Your task to perform on an android device: See recent photos Image 0: 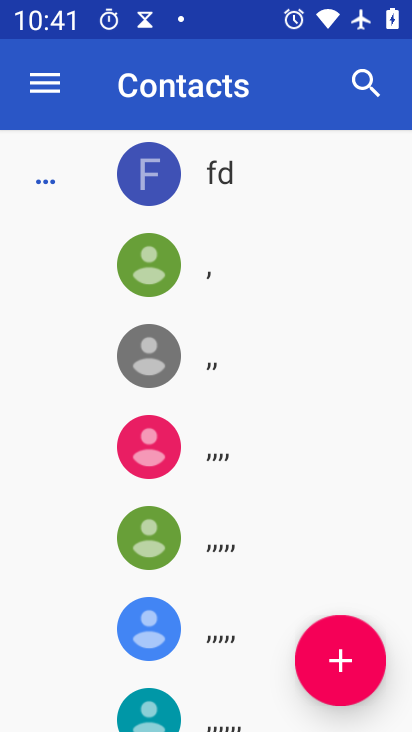
Step 0: press home button
Your task to perform on an android device: See recent photos Image 1: 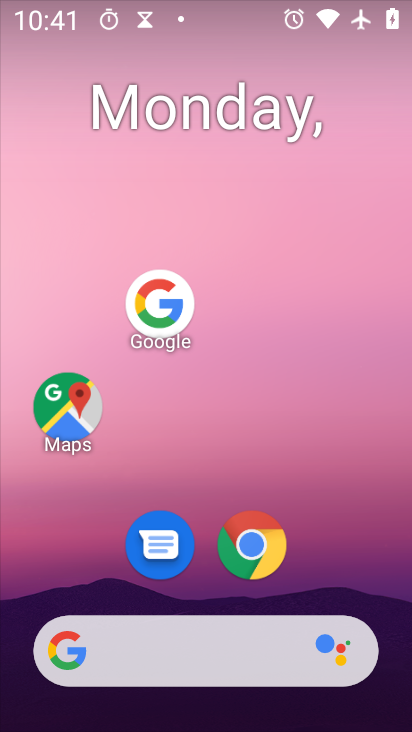
Step 1: drag from (162, 637) to (270, 69)
Your task to perform on an android device: See recent photos Image 2: 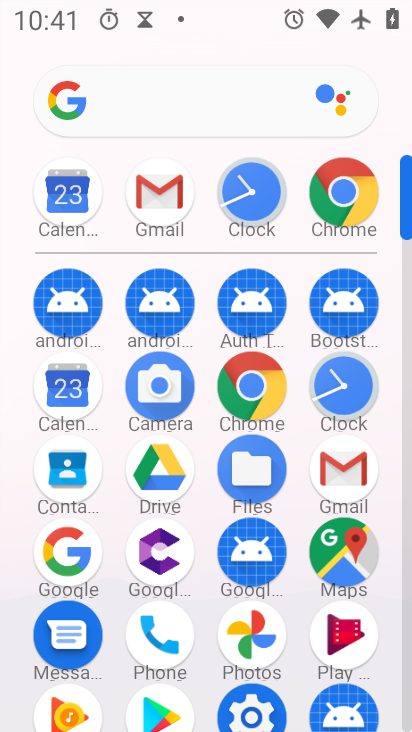
Step 2: click (264, 637)
Your task to perform on an android device: See recent photos Image 3: 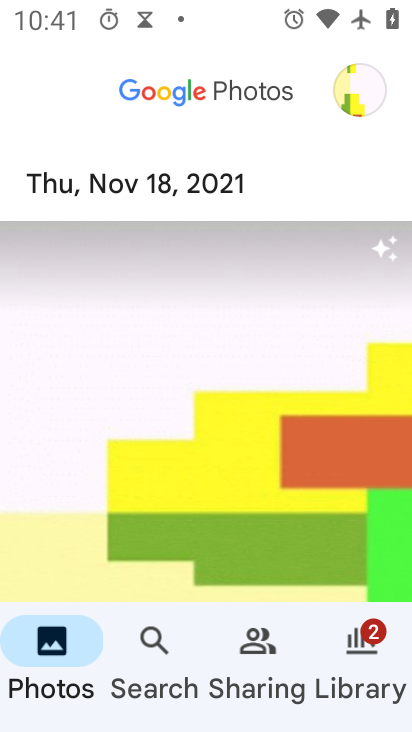
Step 3: click (154, 647)
Your task to perform on an android device: See recent photos Image 4: 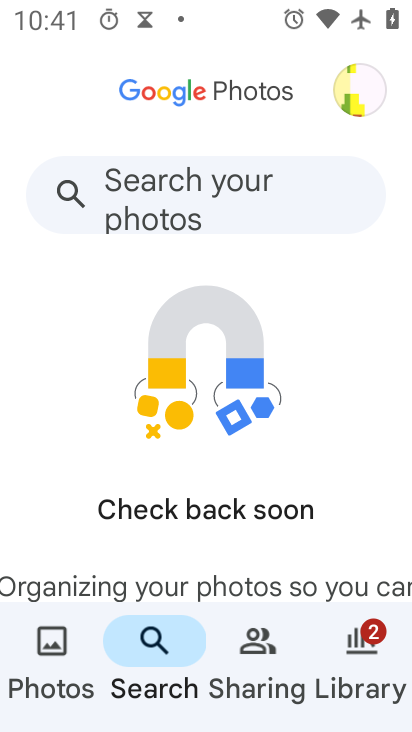
Step 4: drag from (168, 577) to (225, 71)
Your task to perform on an android device: See recent photos Image 5: 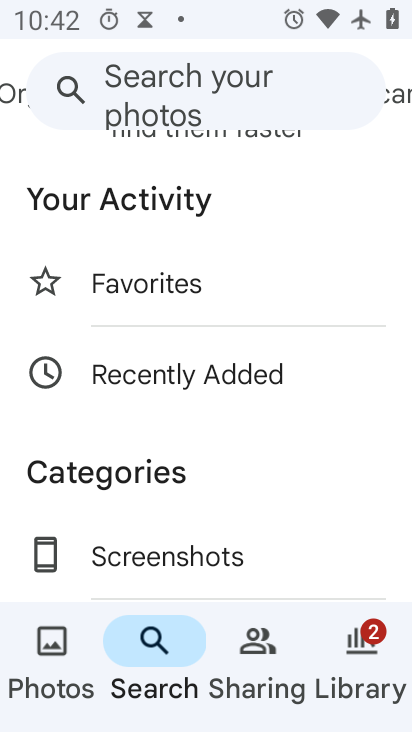
Step 5: drag from (183, 551) to (227, 107)
Your task to perform on an android device: See recent photos Image 6: 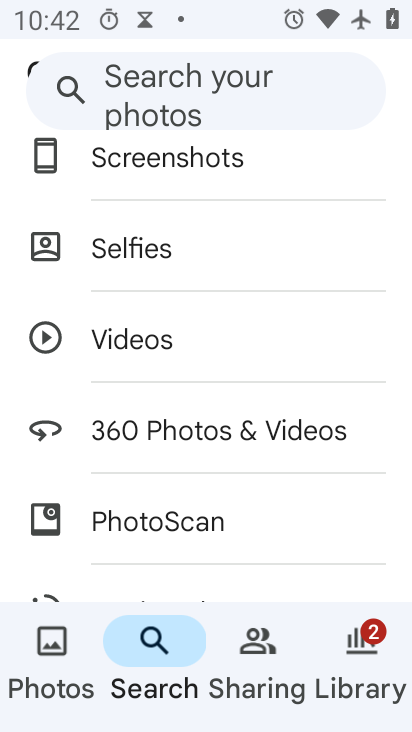
Step 6: drag from (190, 556) to (212, 127)
Your task to perform on an android device: See recent photos Image 7: 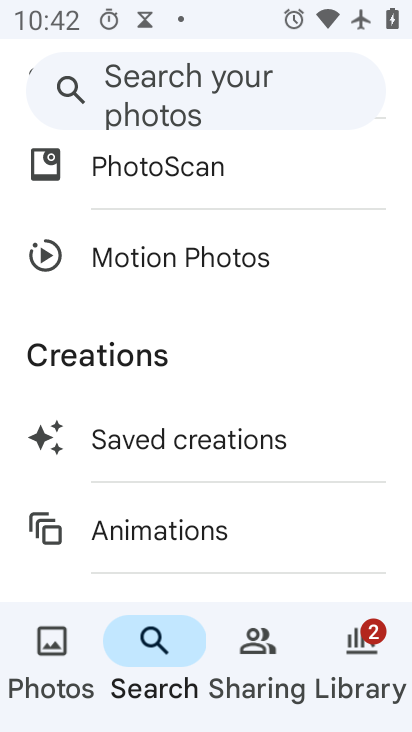
Step 7: drag from (242, 585) to (264, 666)
Your task to perform on an android device: See recent photos Image 8: 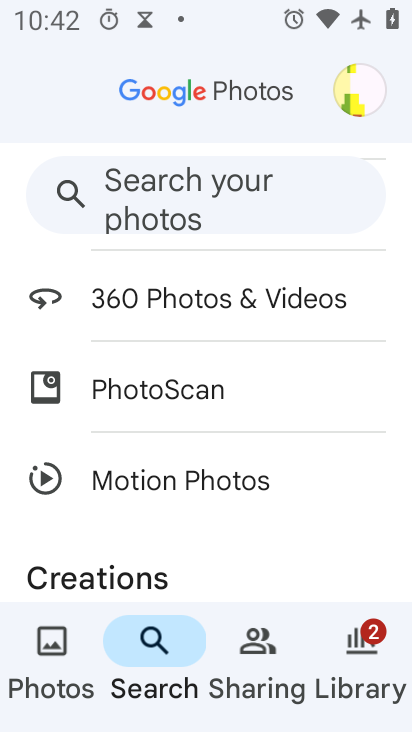
Step 8: drag from (262, 343) to (257, 637)
Your task to perform on an android device: See recent photos Image 9: 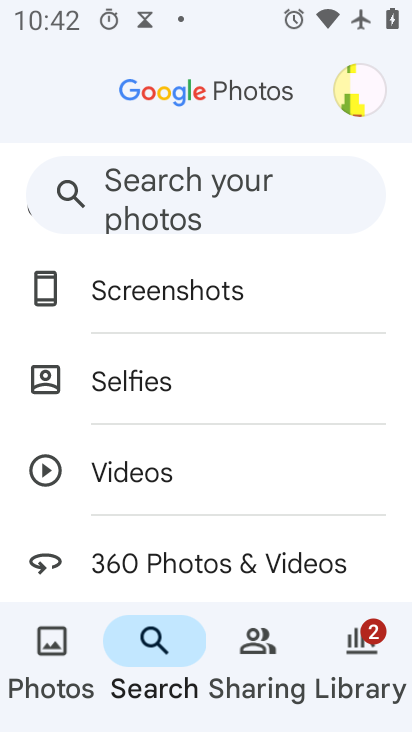
Step 9: drag from (271, 315) to (281, 582)
Your task to perform on an android device: See recent photos Image 10: 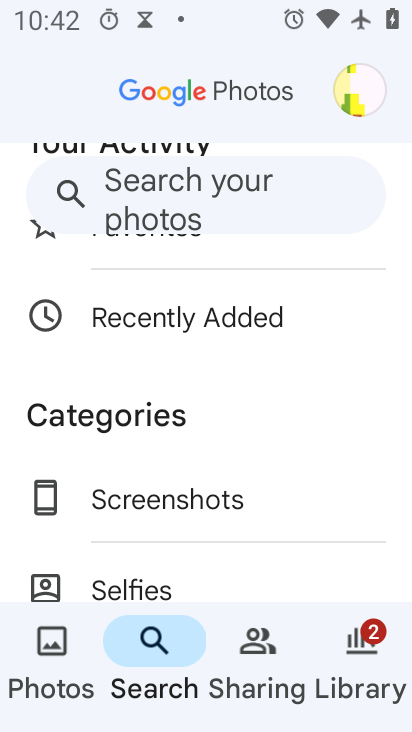
Step 10: click (166, 316)
Your task to perform on an android device: See recent photos Image 11: 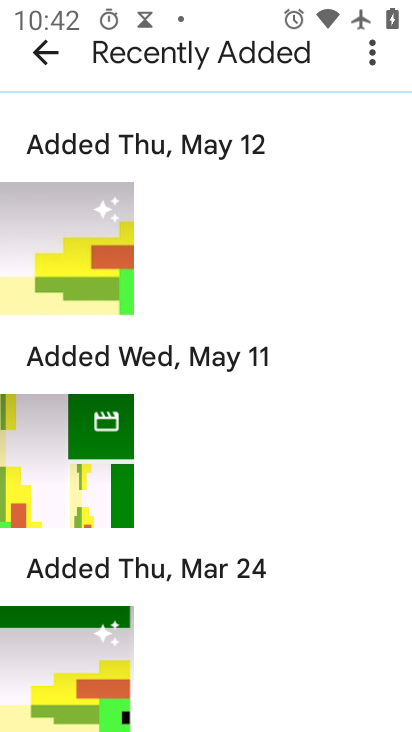
Step 11: task complete